Your task to perform on an android device: check google app version Image 0: 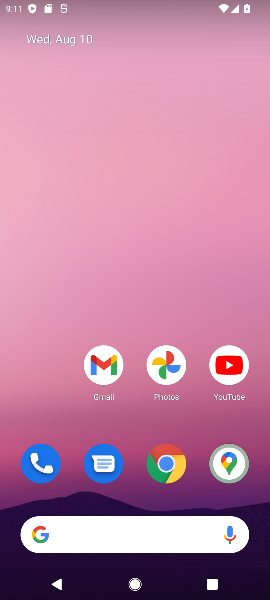
Step 0: drag from (38, 588) to (126, 324)
Your task to perform on an android device: check google app version Image 1: 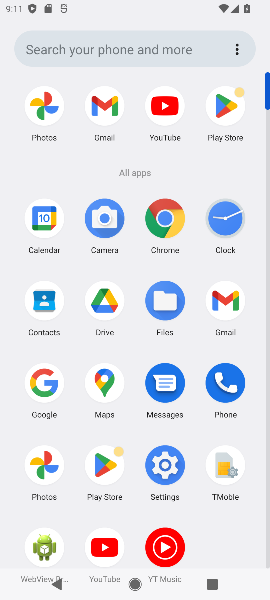
Step 1: click (157, 467)
Your task to perform on an android device: check google app version Image 2: 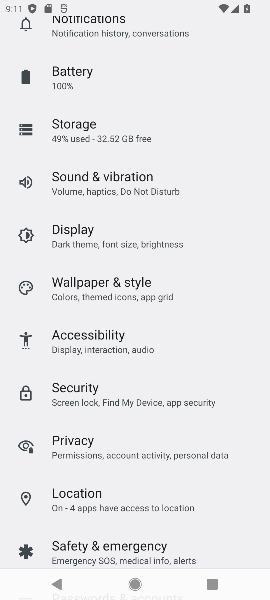
Step 2: drag from (238, 538) to (203, 150)
Your task to perform on an android device: check google app version Image 3: 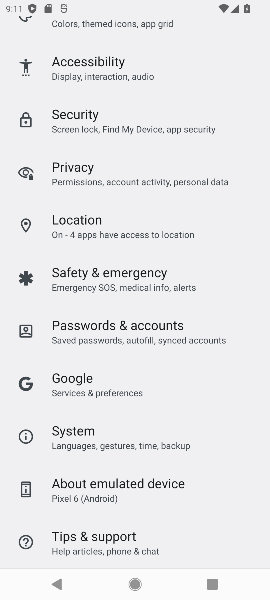
Step 3: drag from (197, 526) to (193, 222)
Your task to perform on an android device: check google app version Image 4: 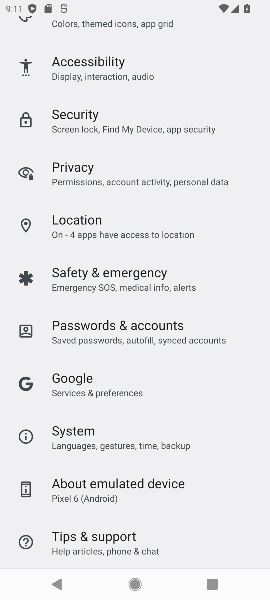
Step 4: click (85, 387)
Your task to perform on an android device: check google app version Image 5: 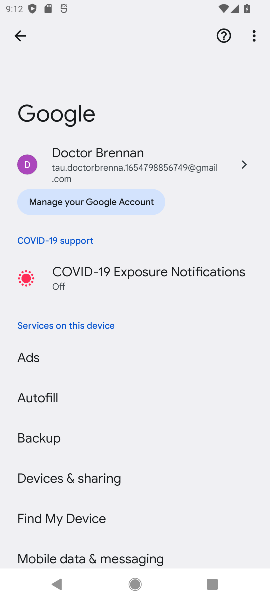
Step 5: task complete